Your task to perform on an android device: Open Wikipedia Image 0: 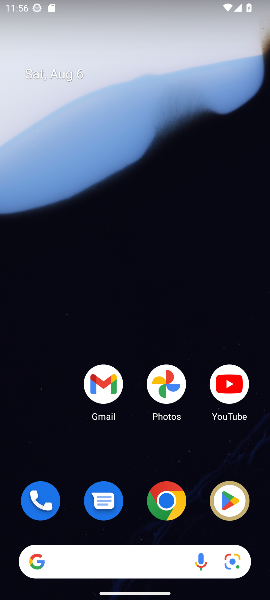
Step 0: click (164, 495)
Your task to perform on an android device: Open Wikipedia Image 1: 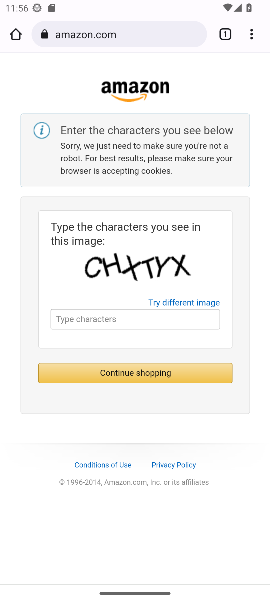
Step 1: click (91, 26)
Your task to perform on an android device: Open Wikipedia Image 2: 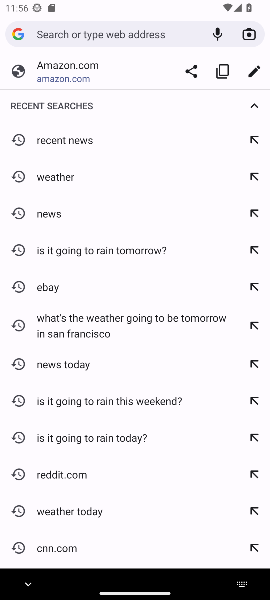
Step 2: type "www.wikipedia."
Your task to perform on an android device: Open Wikipedia Image 3: 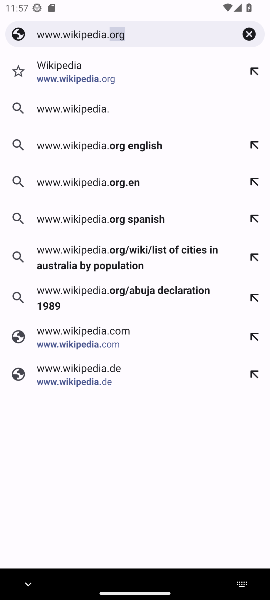
Step 3: click (74, 90)
Your task to perform on an android device: Open Wikipedia Image 4: 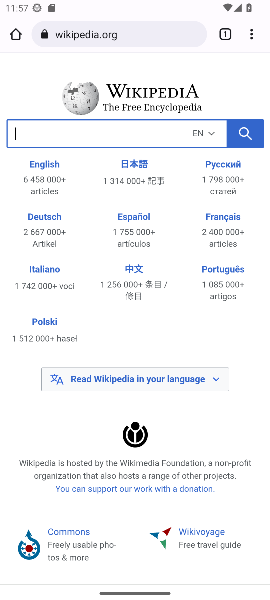
Step 4: task complete